Your task to perform on an android device: Open privacy settings Image 0: 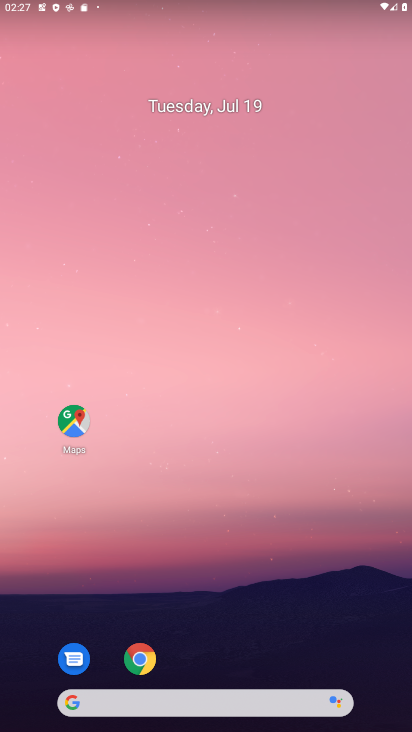
Step 0: press home button
Your task to perform on an android device: Open privacy settings Image 1: 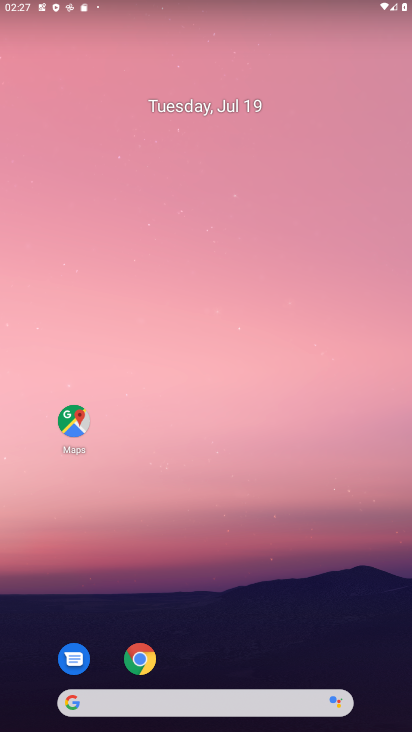
Step 1: drag from (242, 643) to (336, 0)
Your task to perform on an android device: Open privacy settings Image 2: 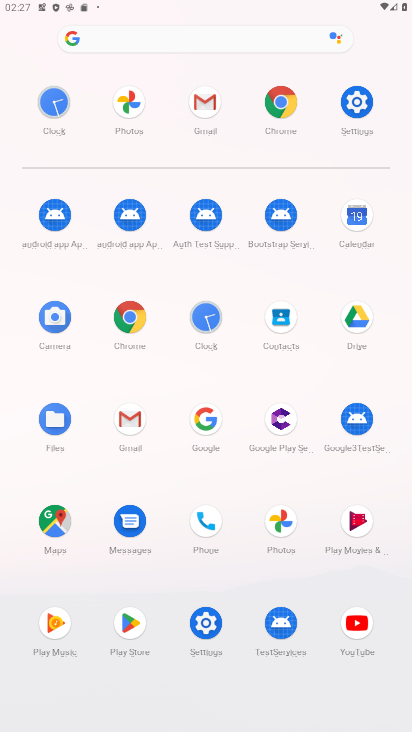
Step 2: click (359, 127)
Your task to perform on an android device: Open privacy settings Image 3: 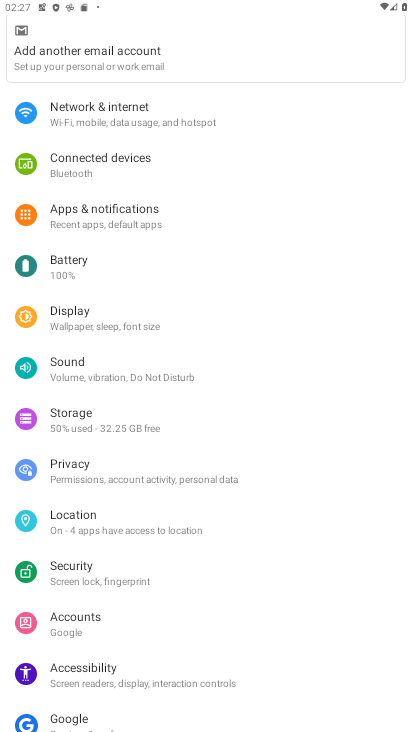
Step 3: click (72, 453)
Your task to perform on an android device: Open privacy settings Image 4: 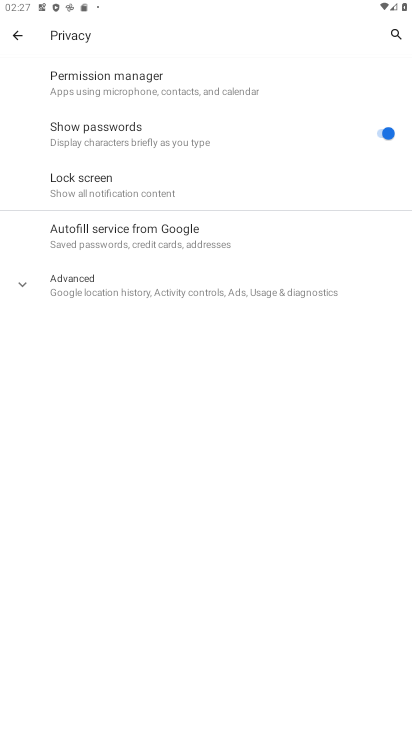
Step 4: task complete